Your task to perform on an android device: Open my contact list Image 0: 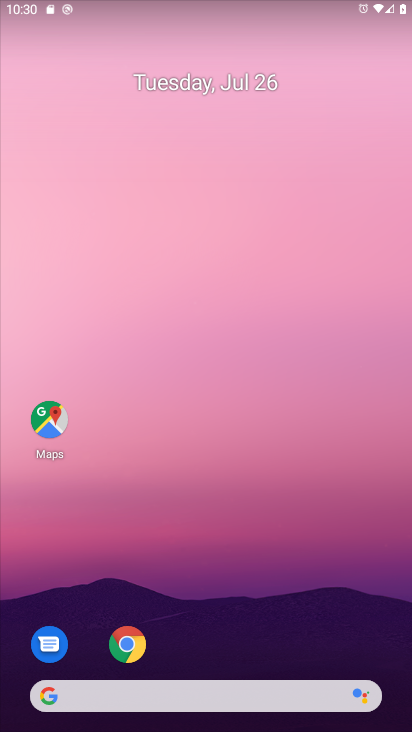
Step 0: drag from (234, 653) to (232, 100)
Your task to perform on an android device: Open my contact list Image 1: 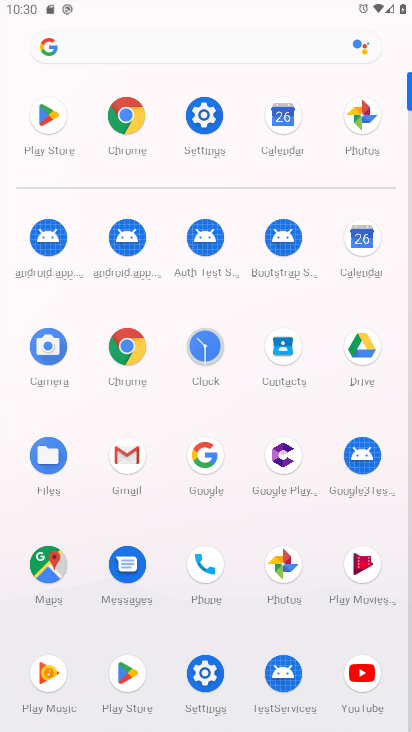
Step 1: click (289, 355)
Your task to perform on an android device: Open my contact list Image 2: 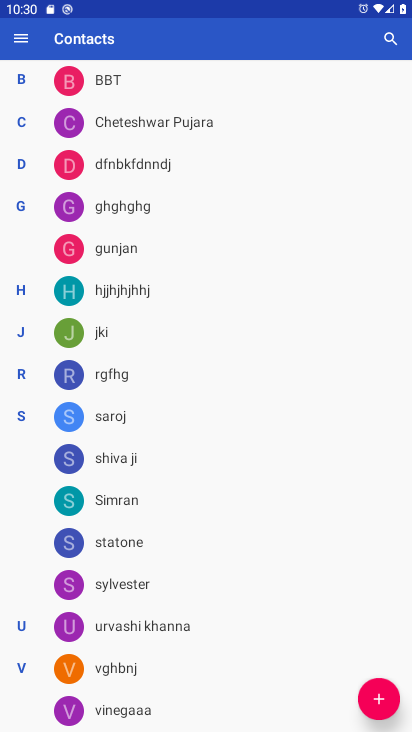
Step 2: task complete